Your task to perform on an android device: What's the weather going to be tomorrow? Image 0: 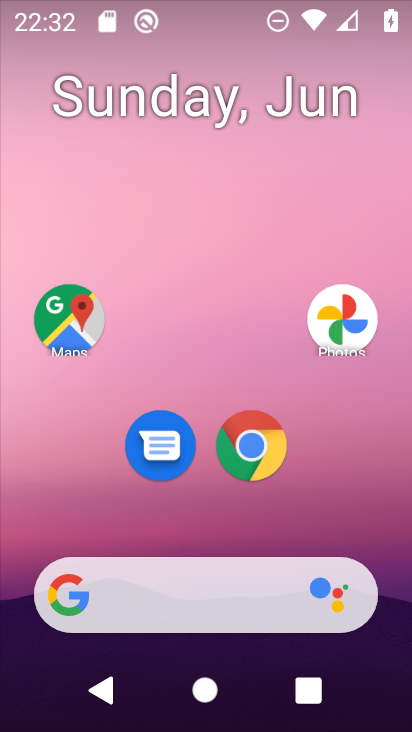
Step 0: press home button
Your task to perform on an android device: What's the weather going to be tomorrow? Image 1: 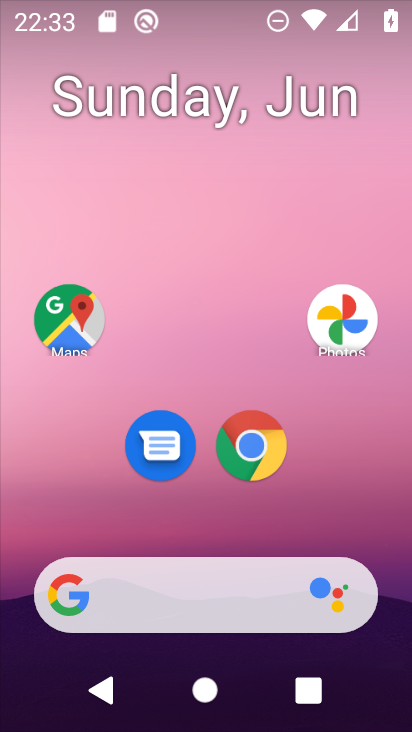
Step 1: click (78, 609)
Your task to perform on an android device: What's the weather going to be tomorrow? Image 2: 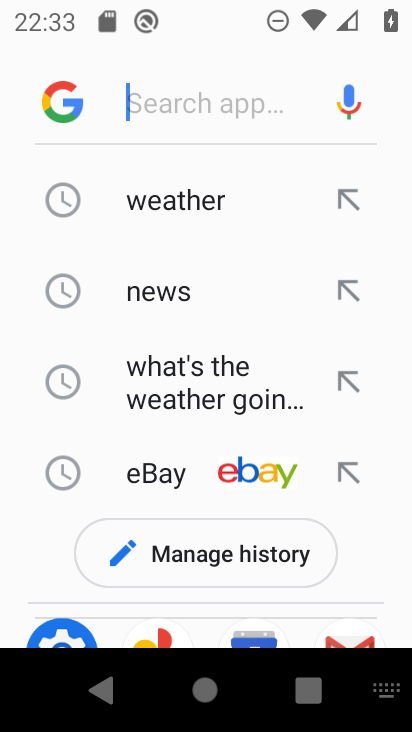
Step 2: click (215, 374)
Your task to perform on an android device: What's the weather going to be tomorrow? Image 3: 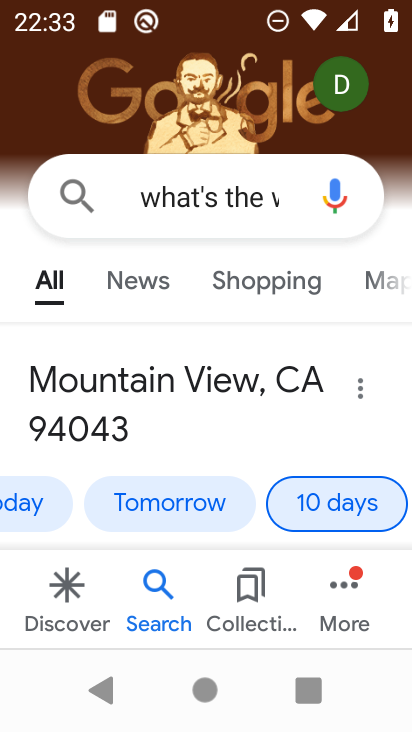
Step 3: drag from (257, 187) to (166, 192)
Your task to perform on an android device: What's the weather going to be tomorrow? Image 4: 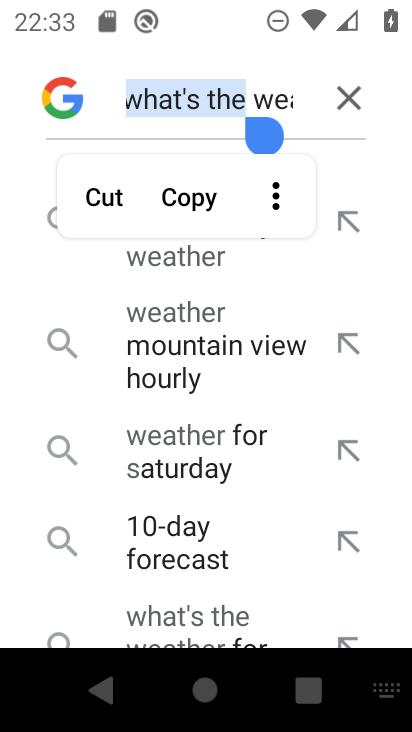
Step 4: click (292, 88)
Your task to perform on an android device: What's the weather going to be tomorrow? Image 5: 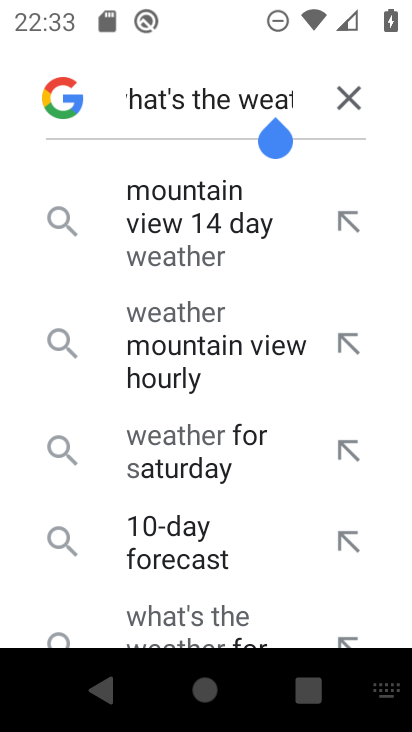
Step 5: task complete